Your task to perform on an android device: Open calendar and show me the fourth week of next month Image 0: 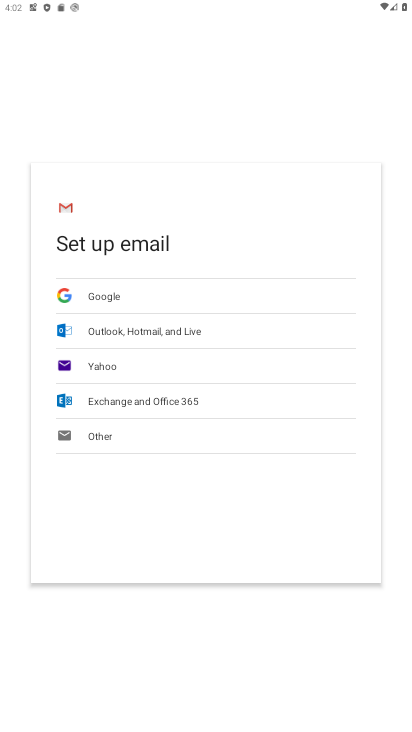
Step 0: press home button
Your task to perform on an android device: Open calendar and show me the fourth week of next month Image 1: 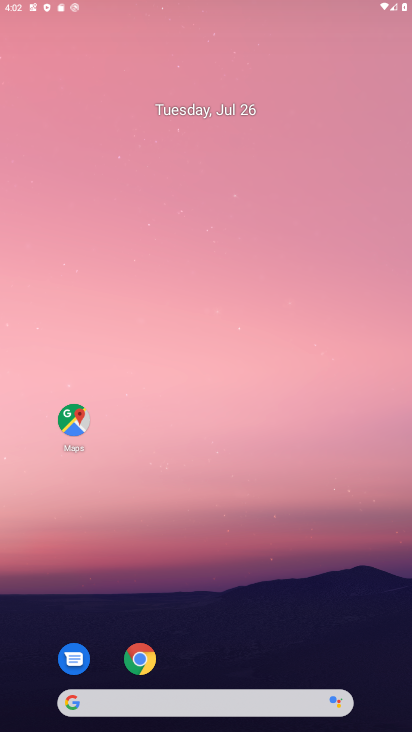
Step 1: drag from (278, 664) to (236, 0)
Your task to perform on an android device: Open calendar and show me the fourth week of next month Image 2: 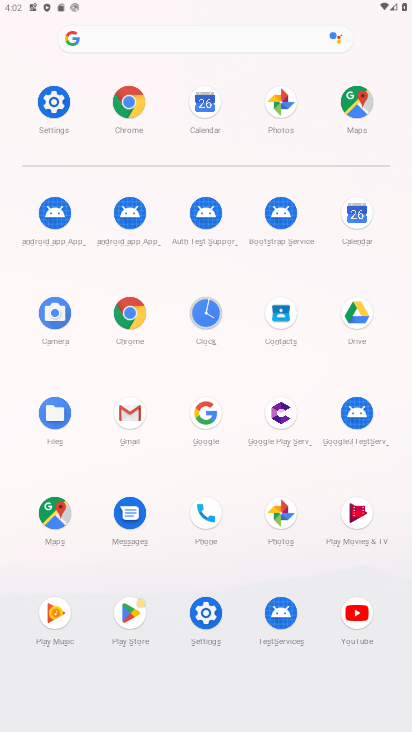
Step 2: click (366, 227)
Your task to perform on an android device: Open calendar and show me the fourth week of next month Image 3: 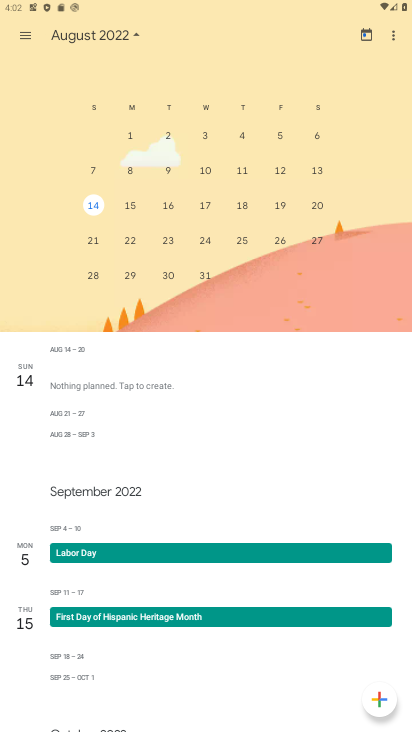
Step 3: drag from (364, 226) to (29, 245)
Your task to perform on an android device: Open calendar and show me the fourth week of next month Image 4: 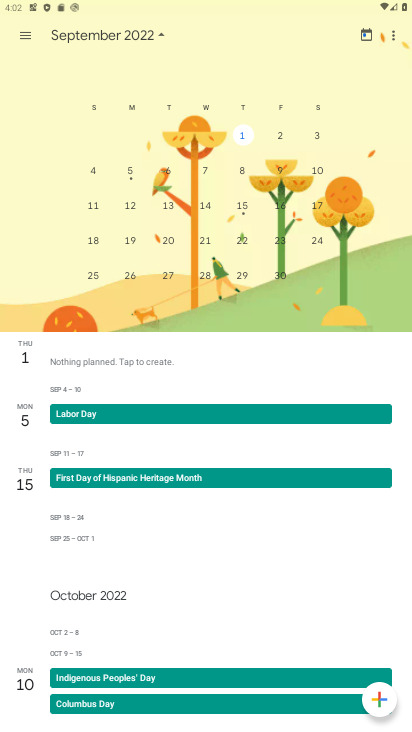
Step 4: click (204, 278)
Your task to perform on an android device: Open calendar and show me the fourth week of next month Image 5: 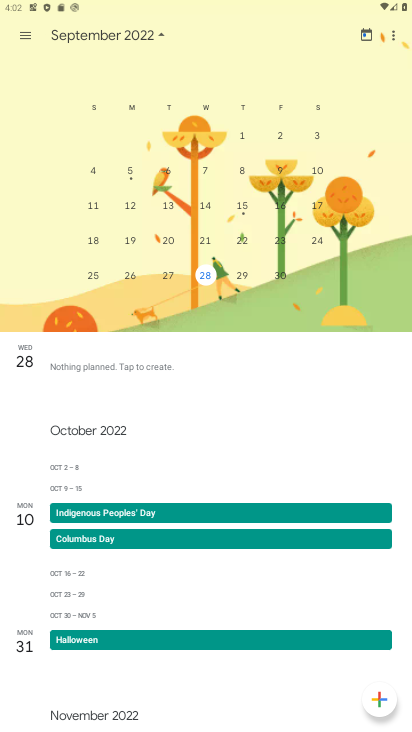
Step 5: task complete